Your task to perform on an android device: Open privacy settings Image 0: 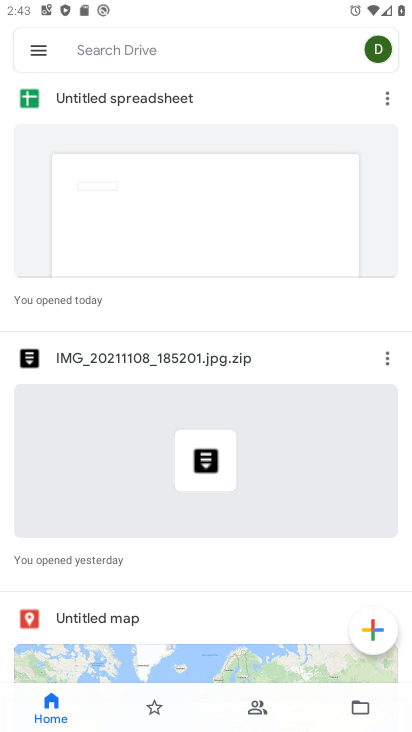
Step 0: press back button
Your task to perform on an android device: Open privacy settings Image 1: 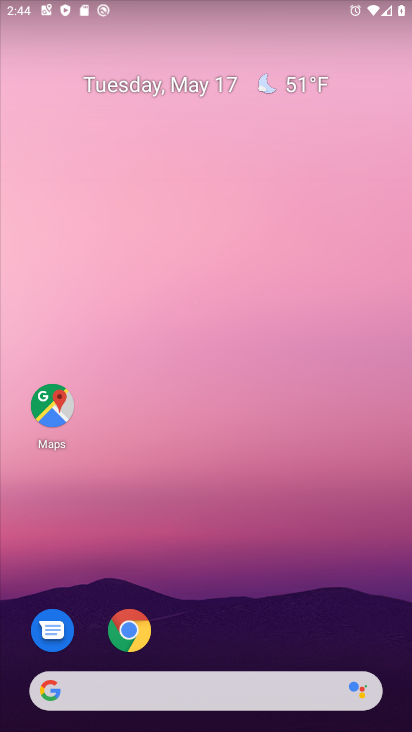
Step 1: drag from (252, 628) to (303, 133)
Your task to perform on an android device: Open privacy settings Image 2: 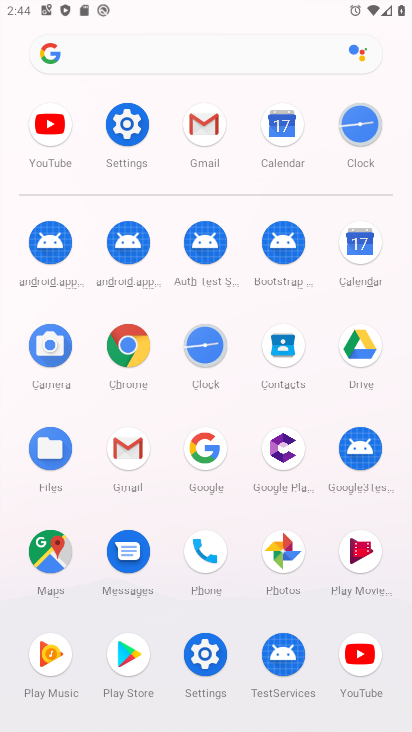
Step 2: click (121, 121)
Your task to perform on an android device: Open privacy settings Image 3: 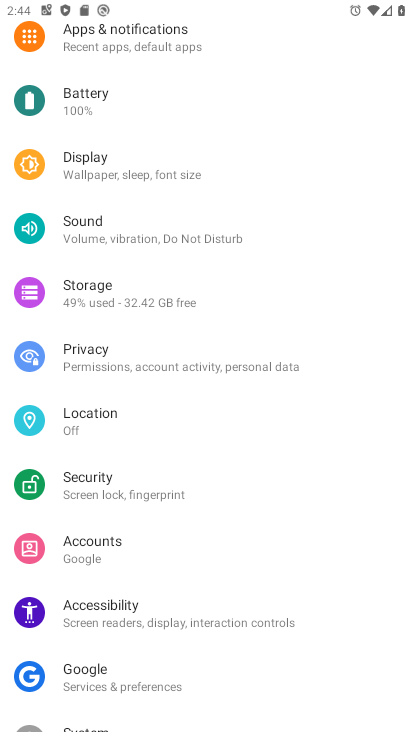
Step 3: click (101, 358)
Your task to perform on an android device: Open privacy settings Image 4: 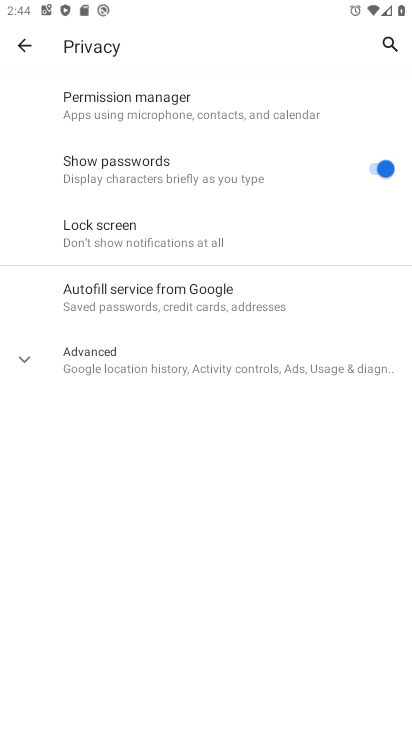
Step 4: task complete